Your task to perform on an android device: allow cookies in the chrome app Image 0: 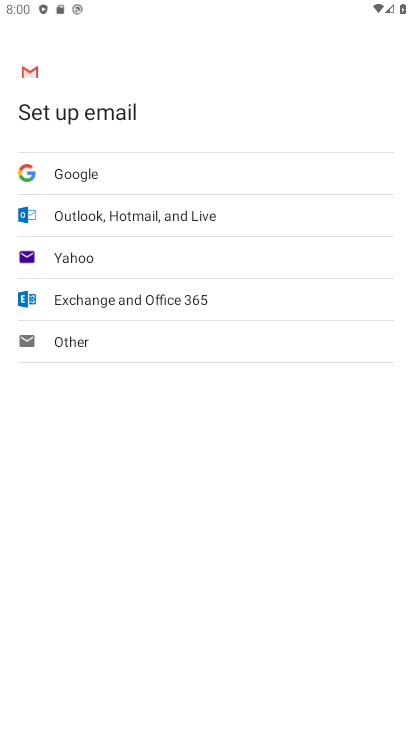
Step 0: press home button
Your task to perform on an android device: allow cookies in the chrome app Image 1: 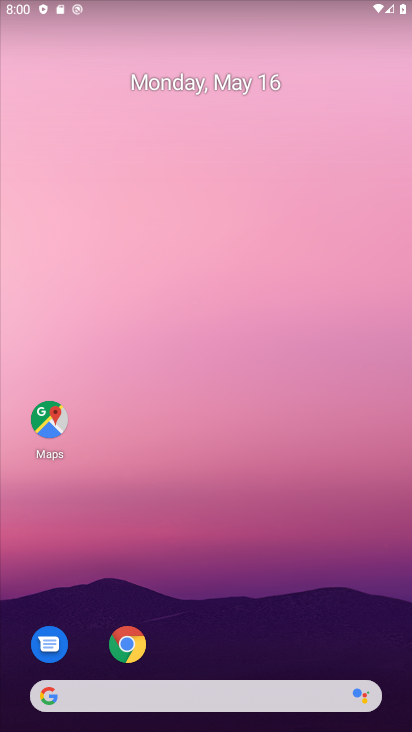
Step 1: click (130, 646)
Your task to perform on an android device: allow cookies in the chrome app Image 2: 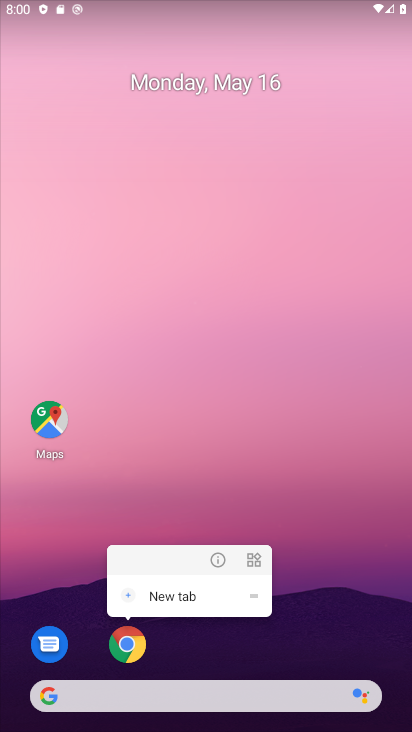
Step 2: click (133, 641)
Your task to perform on an android device: allow cookies in the chrome app Image 3: 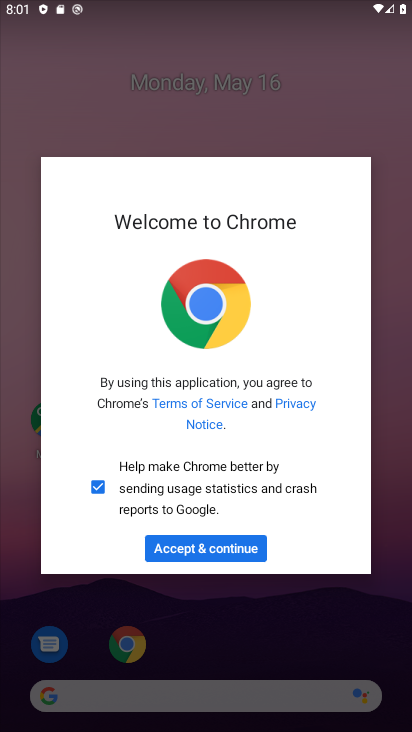
Step 3: click (236, 542)
Your task to perform on an android device: allow cookies in the chrome app Image 4: 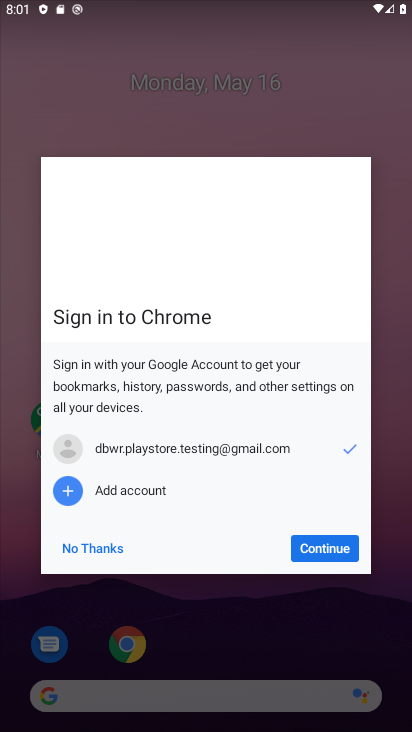
Step 4: click (323, 551)
Your task to perform on an android device: allow cookies in the chrome app Image 5: 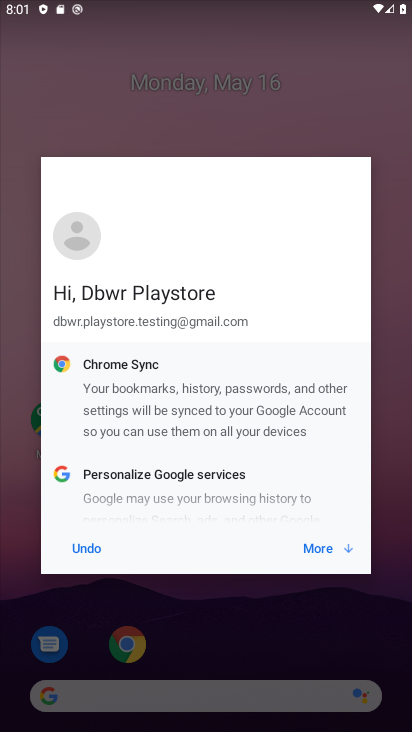
Step 5: click (323, 551)
Your task to perform on an android device: allow cookies in the chrome app Image 6: 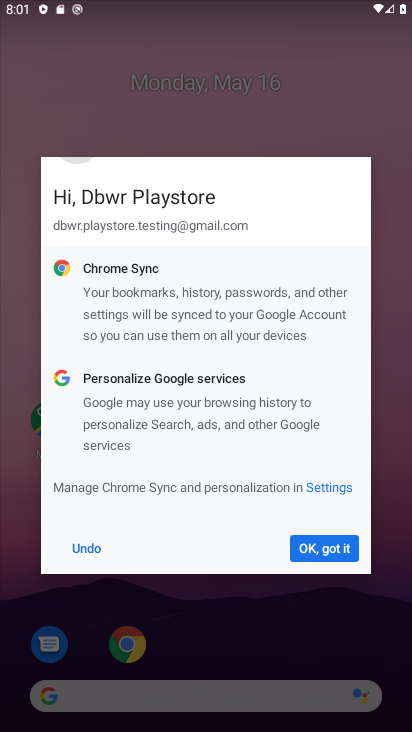
Step 6: click (323, 551)
Your task to perform on an android device: allow cookies in the chrome app Image 7: 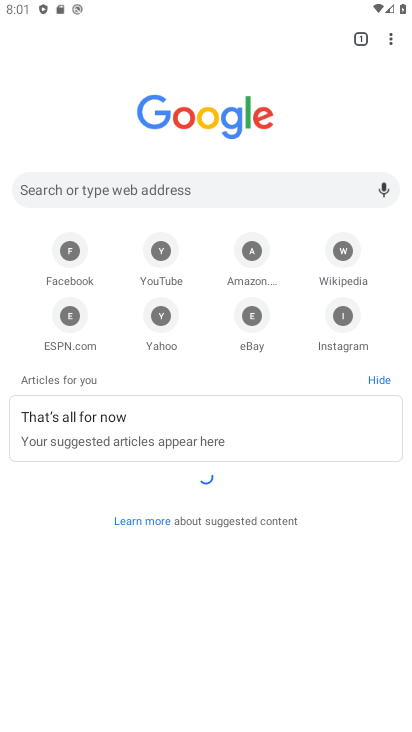
Step 7: click (389, 39)
Your task to perform on an android device: allow cookies in the chrome app Image 8: 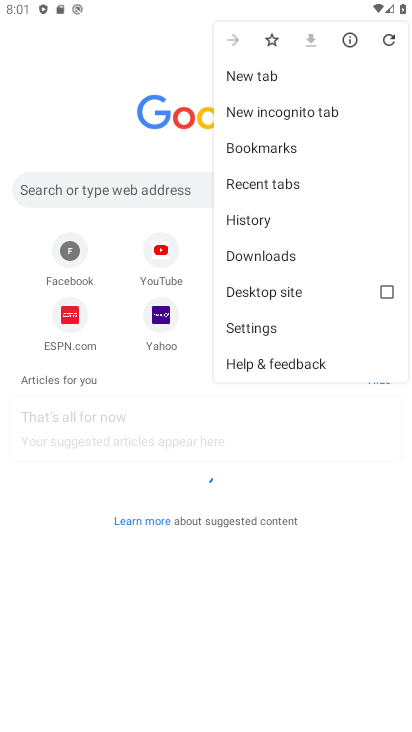
Step 8: click (281, 332)
Your task to perform on an android device: allow cookies in the chrome app Image 9: 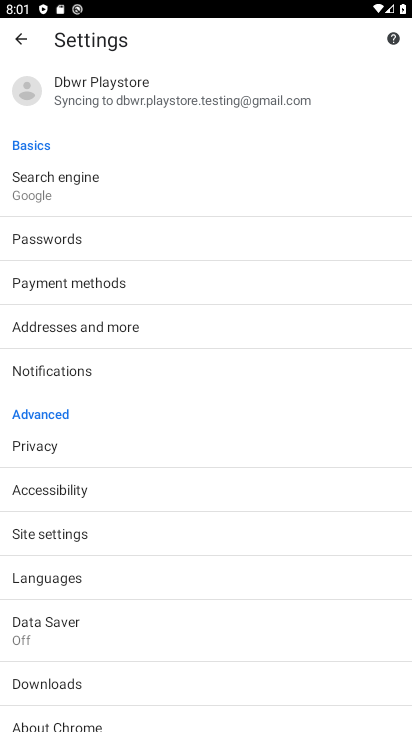
Step 9: click (48, 535)
Your task to perform on an android device: allow cookies in the chrome app Image 10: 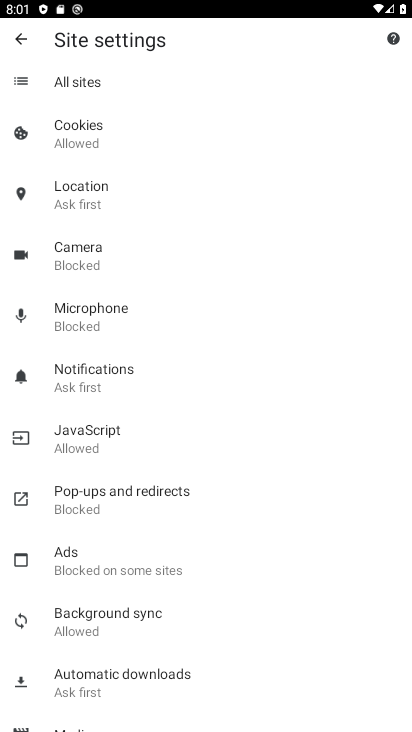
Step 10: click (125, 124)
Your task to perform on an android device: allow cookies in the chrome app Image 11: 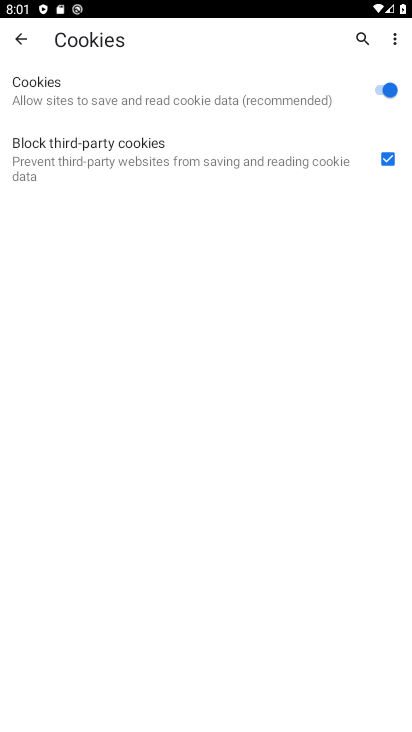
Step 11: task complete